Your task to perform on an android device: What is the recent news? Image 0: 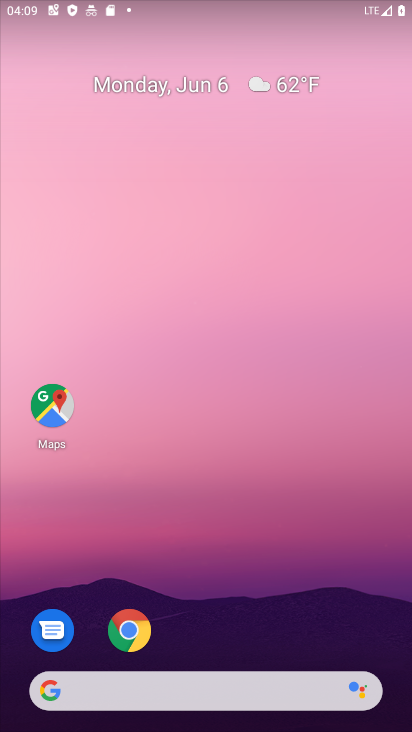
Step 0: drag from (265, 645) to (231, 3)
Your task to perform on an android device: What is the recent news? Image 1: 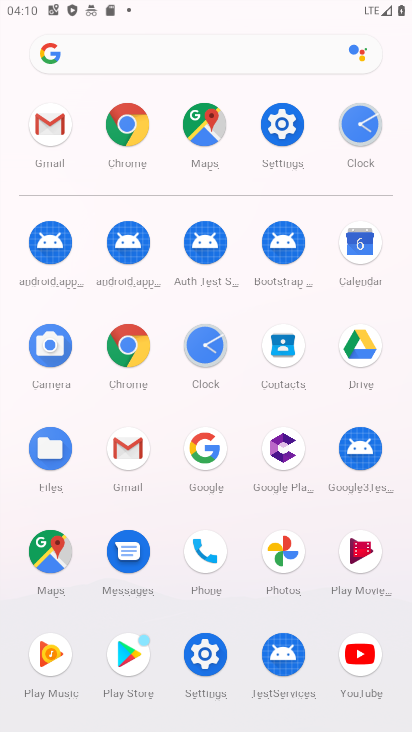
Step 1: click (127, 351)
Your task to perform on an android device: What is the recent news? Image 2: 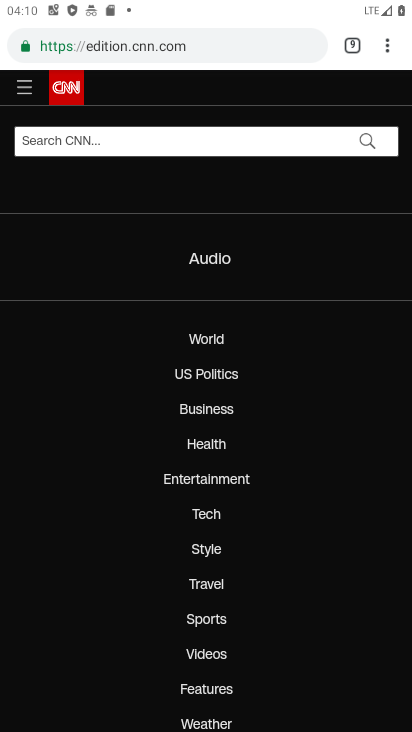
Step 2: click (227, 49)
Your task to perform on an android device: What is the recent news? Image 3: 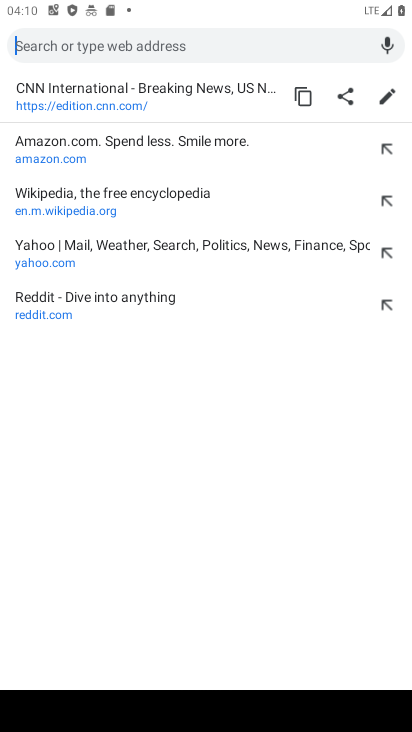
Step 3: type "What is the recent news?"
Your task to perform on an android device: What is the recent news? Image 4: 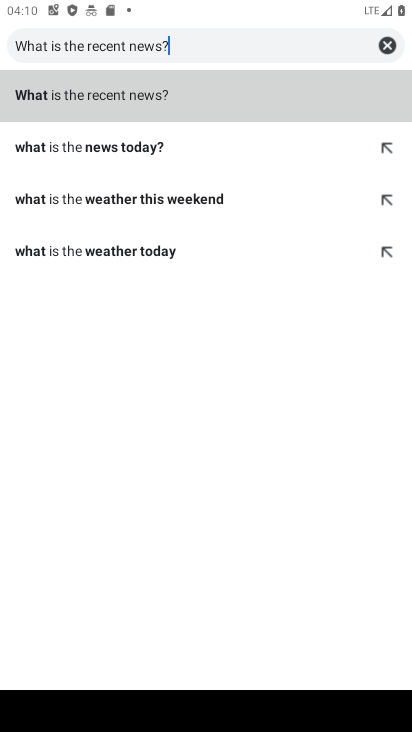
Step 4: type ""
Your task to perform on an android device: What is the recent news? Image 5: 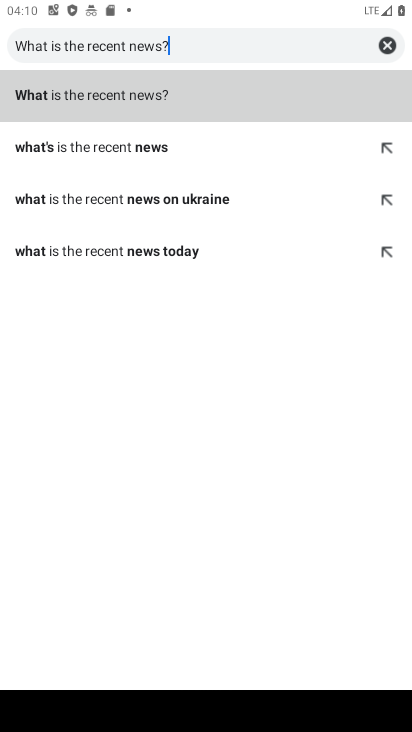
Step 5: click (197, 87)
Your task to perform on an android device: What is the recent news? Image 6: 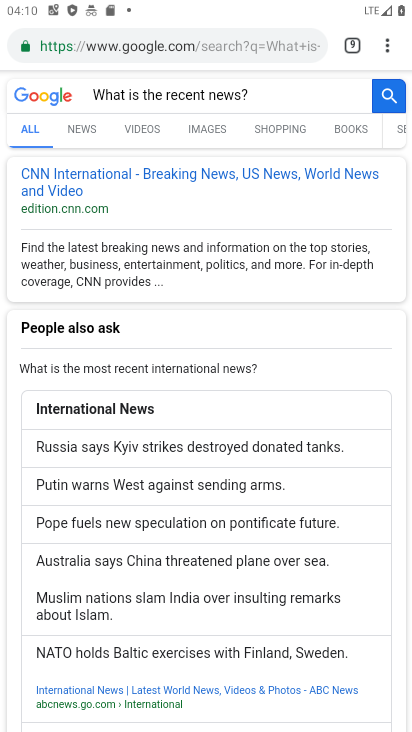
Step 6: task complete